Your task to perform on an android device: turn on data saver in the chrome app Image 0: 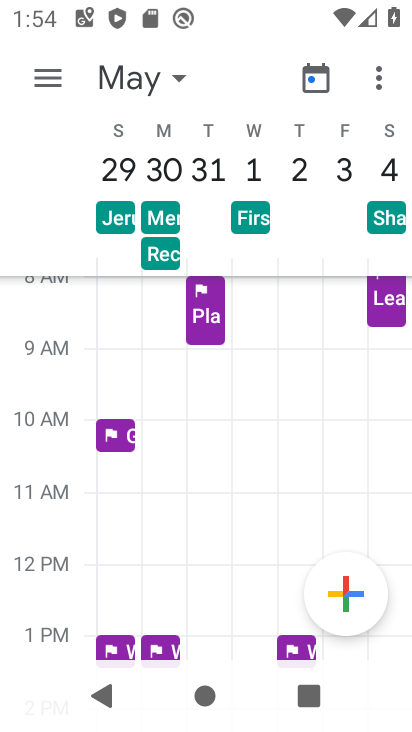
Step 0: press home button
Your task to perform on an android device: turn on data saver in the chrome app Image 1: 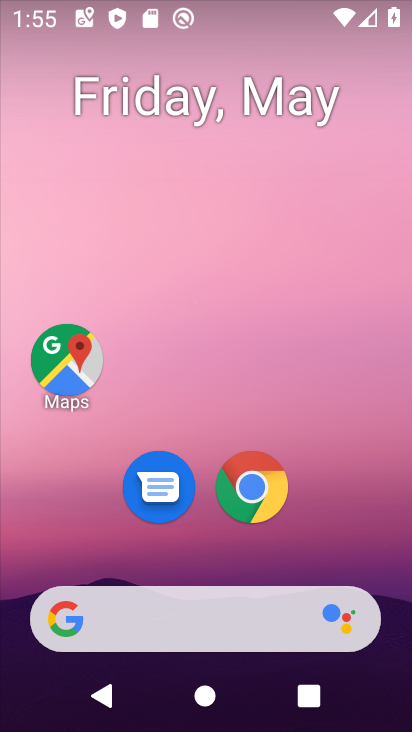
Step 1: click (255, 474)
Your task to perform on an android device: turn on data saver in the chrome app Image 2: 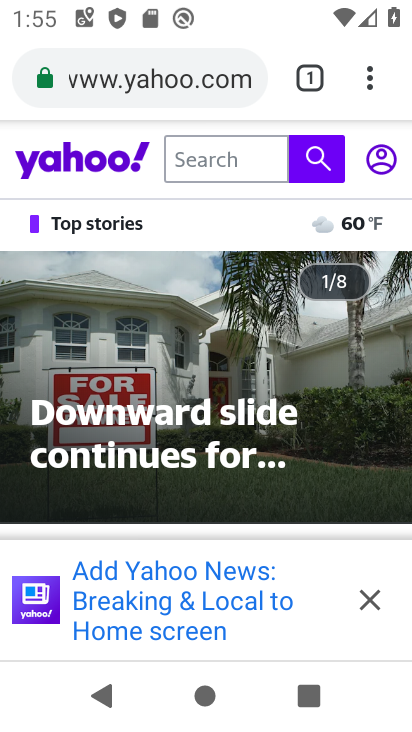
Step 2: click (370, 78)
Your task to perform on an android device: turn on data saver in the chrome app Image 3: 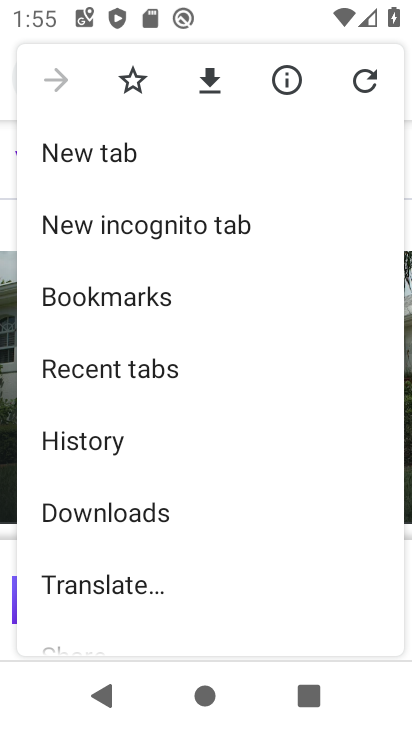
Step 3: drag from (278, 553) to (250, 126)
Your task to perform on an android device: turn on data saver in the chrome app Image 4: 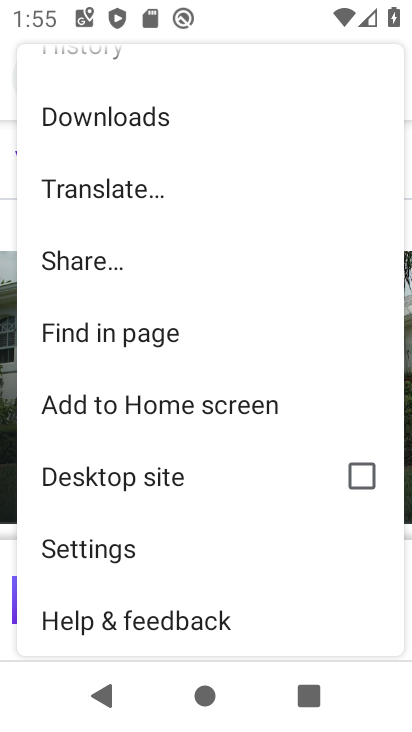
Step 4: click (114, 555)
Your task to perform on an android device: turn on data saver in the chrome app Image 5: 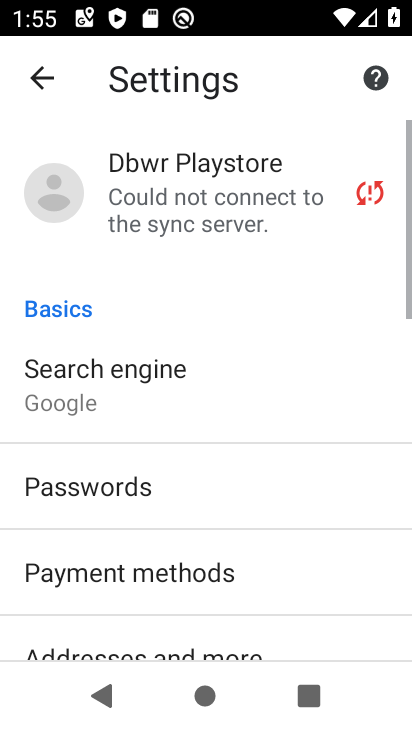
Step 5: drag from (176, 601) to (188, 204)
Your task to perform on an android device: turn on data saver in the chrome app Image 6: 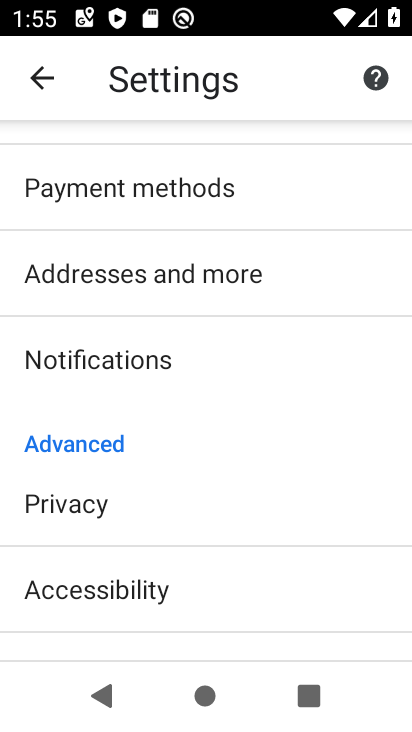
Step 6: drag from (194, 488) to (190, 186)
Your task to perform on an android device: turn on data saver in the chrome app Image 7: 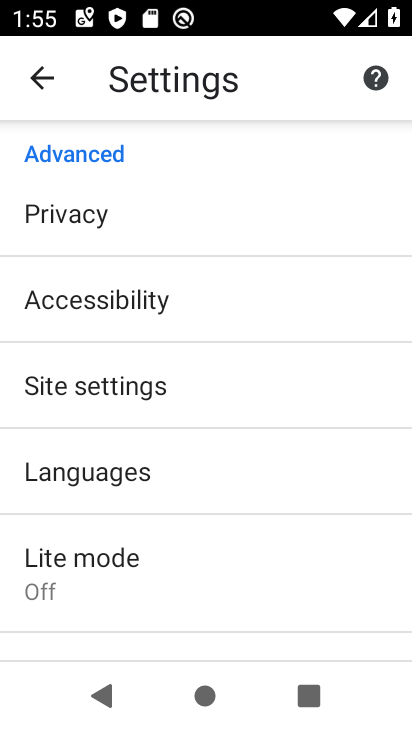
Step 7: click (109, 566)
Your task to perform on an android device: turn on data saver in the chrome app Image 8: 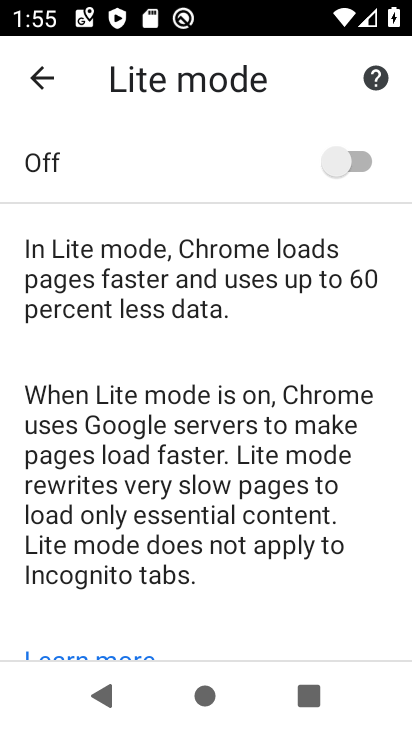
Step 8: click (341, 166)
Your task to perform on an android device: turn on data saver in the chrome app Image 9: 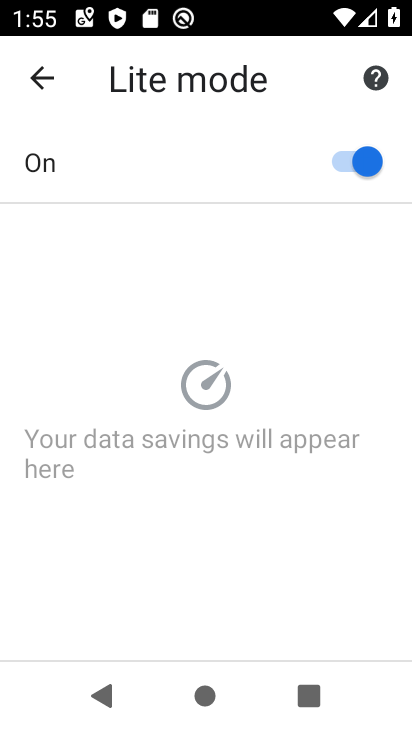
Step 9: task complete